Your task to perform on an android device: Open Chrome and go to settings Image 0: 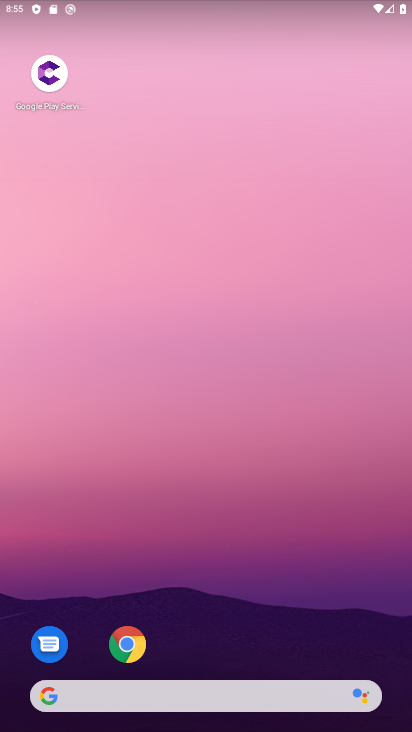
Step 0: drag from (223, 492) to (186, 73)
Your task to perform on an android device: Open Chrome and go to settings Image 1: 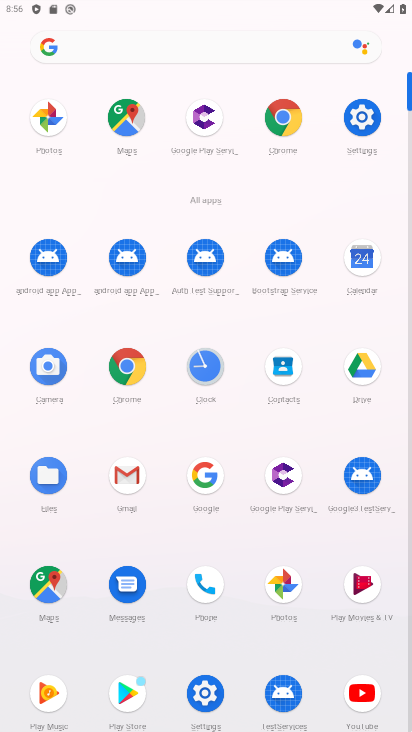
Step 1: click (134, 368)
Your task to perform on an android device: Open Chrome and go to settings Image 2: 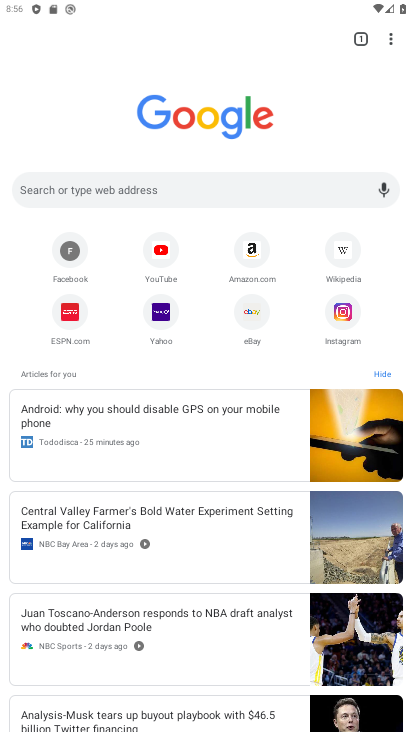
Step 2: task complete